Your task to perform on an android device: open a new tab in the chrome app Image 0: 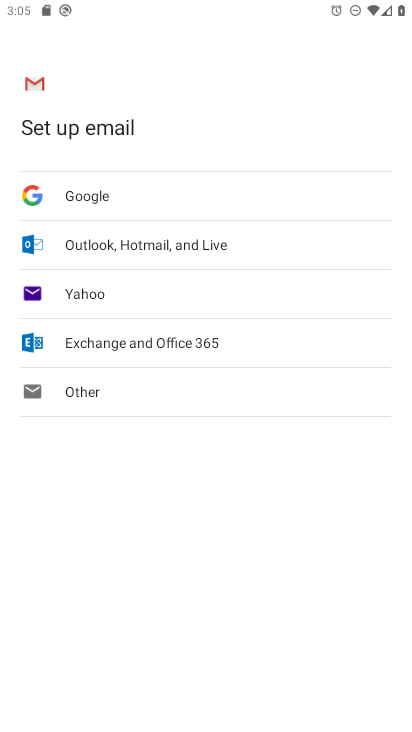
Step 0: press home button
Your task to perform on an android device: open a new tab in the chrome app Image 1: 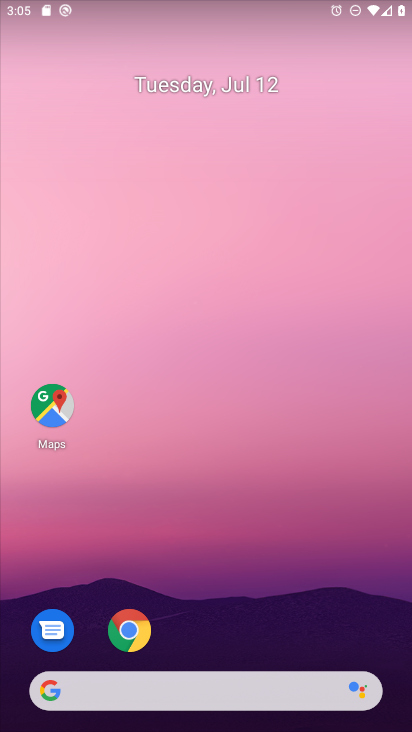
Step 1: click (134, 646)
Your task to perform on an android device: open a new tab in the chrome app Image 2: 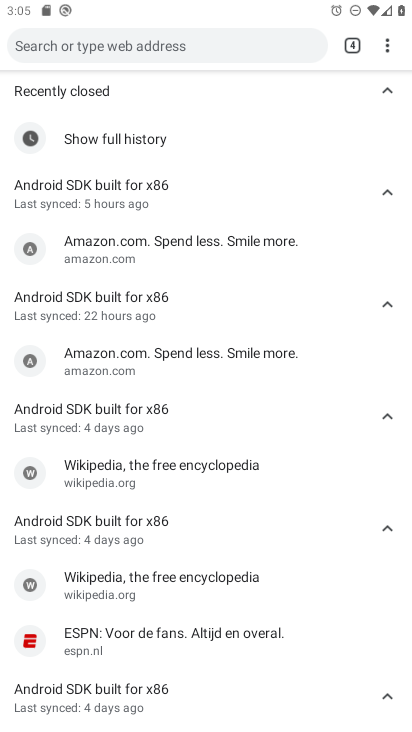
Step 2: click (347, 39)
Your task to perform on an android device: open a new tab in the chrome app Image 3: 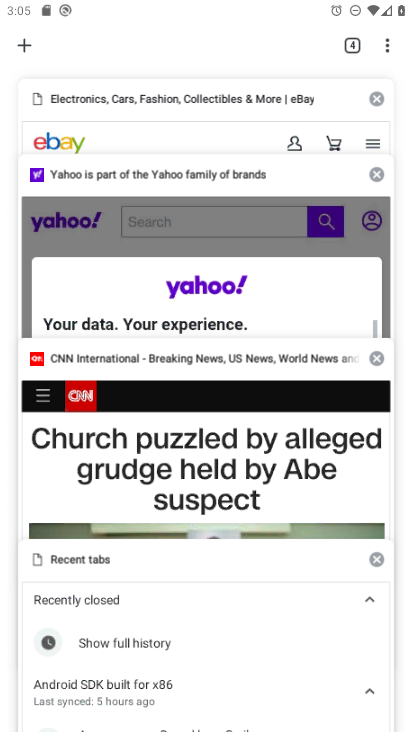
Step 3: click (27, 48)
Your task to perform on an android device: open a new tab in the chrome app Image 4: 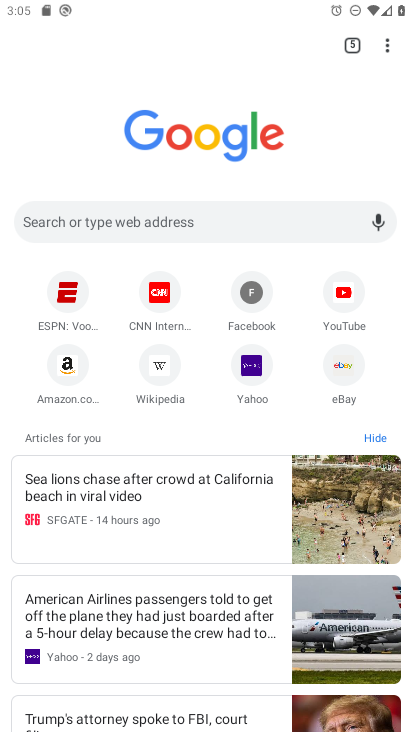
Step 4: task complete